Your task to perform on an android device: What's the weather going to be this weekend? Image 0: 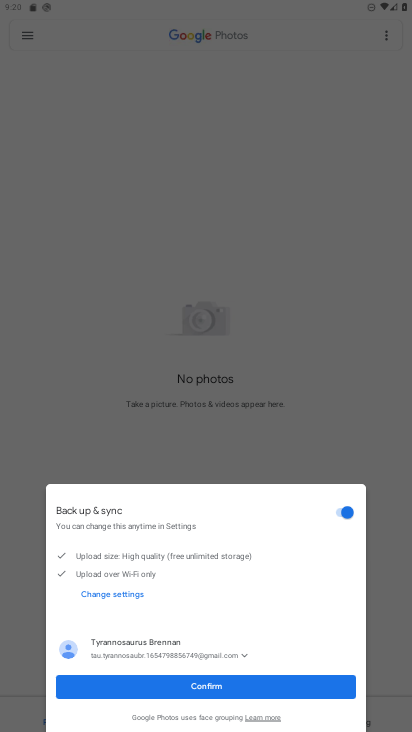
Step 0: press home button
Your task to perform on an android device: What's the weather going to be this weekend? Image 1: 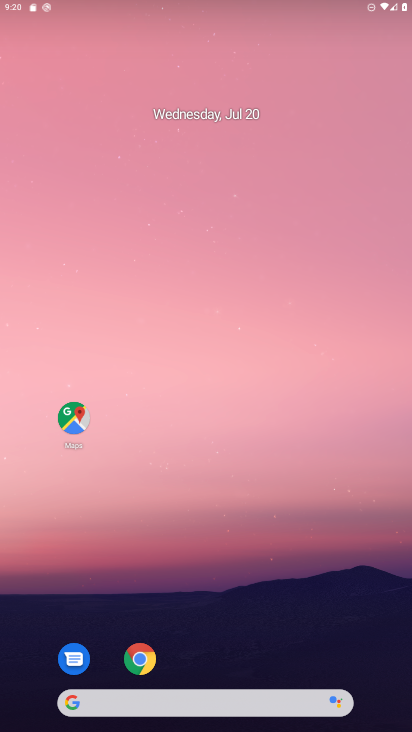
Step 1: drag from (337, 558) to (249, 56)
Your task to perform on an android device: What's the weather going to be this weekend? Image 2: 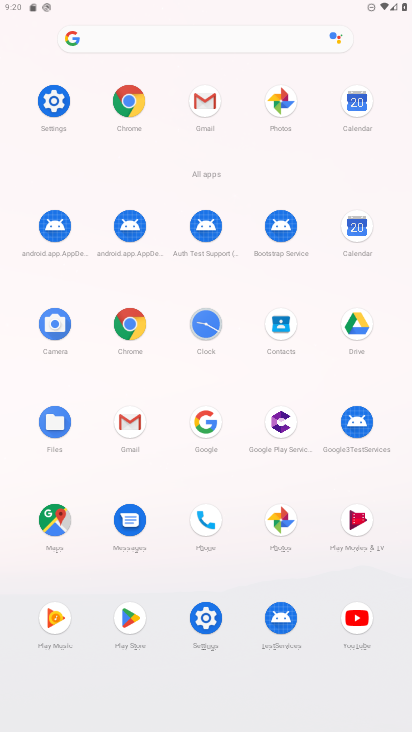
Step 2: click (138, 324)
Your task to perform on an android device: What's the weather going to be this weekend? Image 3: 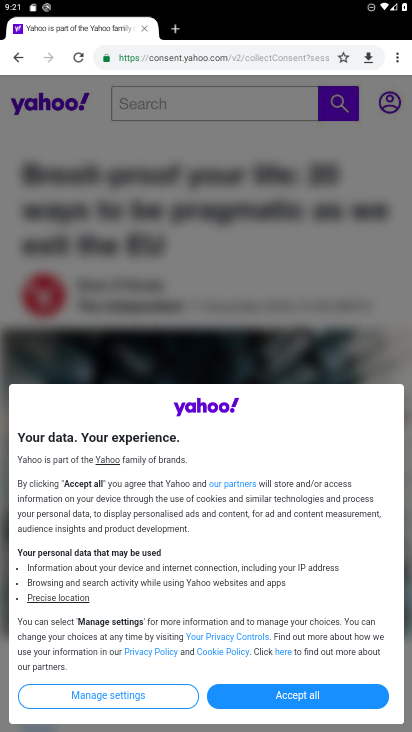
Step 3: click (262, 54)
Your task to perform on an android device: What's the weather going to be this weekend? Image 4: 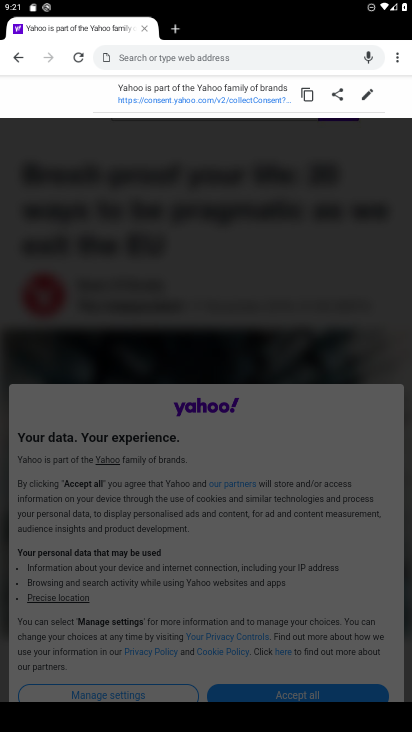
Step 4: type "weather"
Your task to perform on an android device: What's the weather going to be this weekend? Image 5: 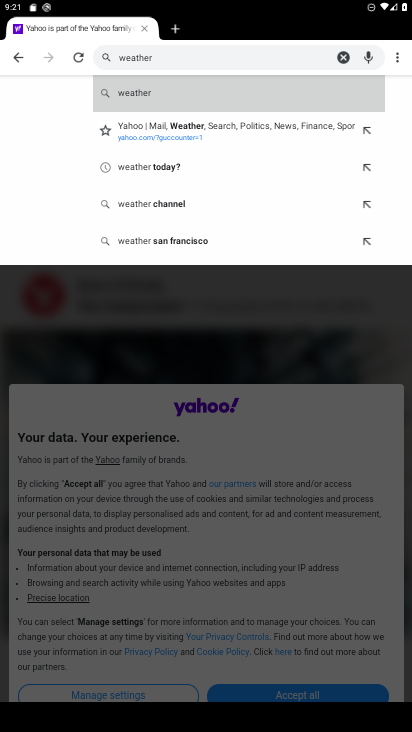
Step 5: click (159, 88)
Your task to perform on an android device: What's the weather going to be this weekend? Image 6: 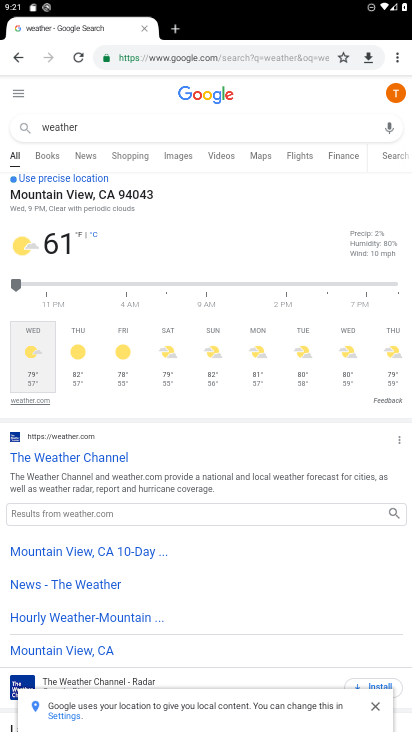
Step 6: click (115, 352)
Your task to perform on an android device: What's the weather going to be this weekend? Image 7: 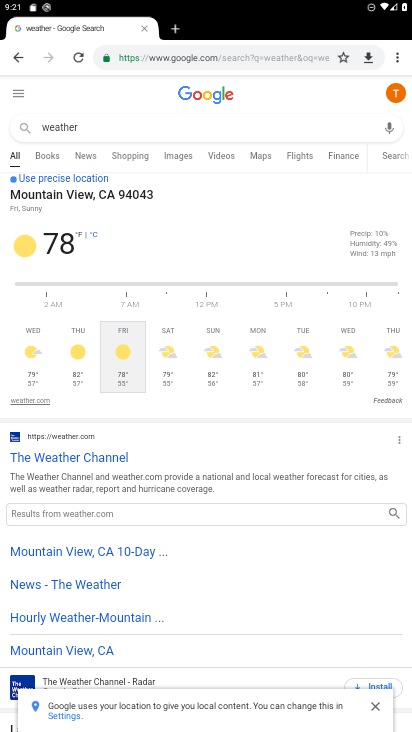
Step 7: task complete